Your task to perform on an android device: turn off data saver in the chrome app Image 0: 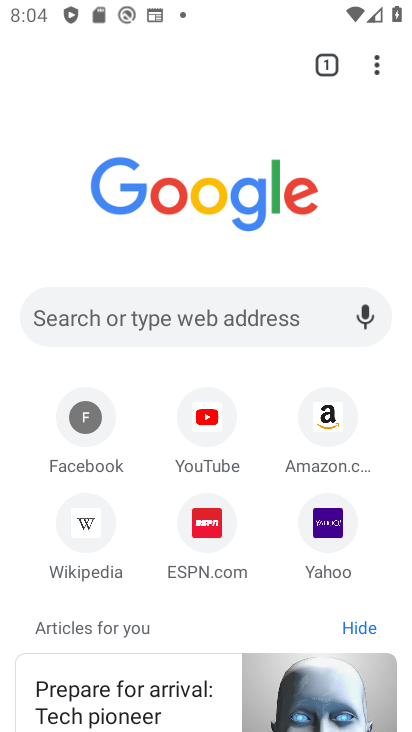
Step 0: press home button
Your task to perform on an android device: turn off data saver in the chrome app Image 1: 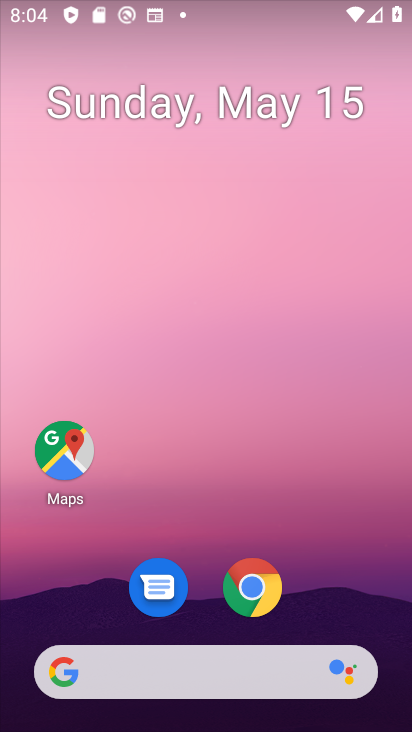
Step 1: drag from (184, 629) to (246, 217)
Your task to perform on an android device: turn off data saver in the chrome app Image 2: 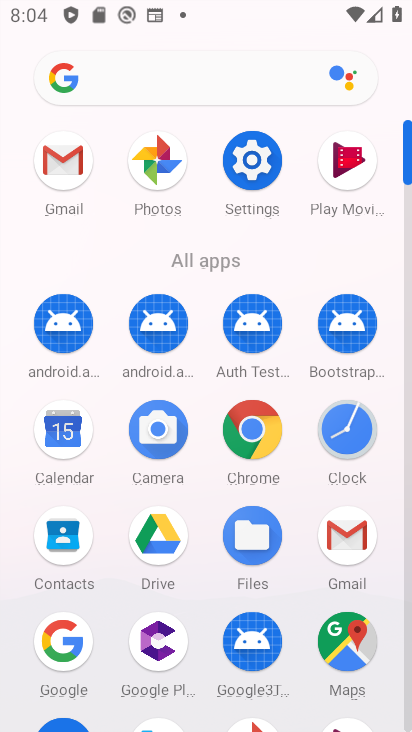
Step 2: click (247, 480)
Your task to perform on an android device: turn off data saver in the chrome app Image 3: 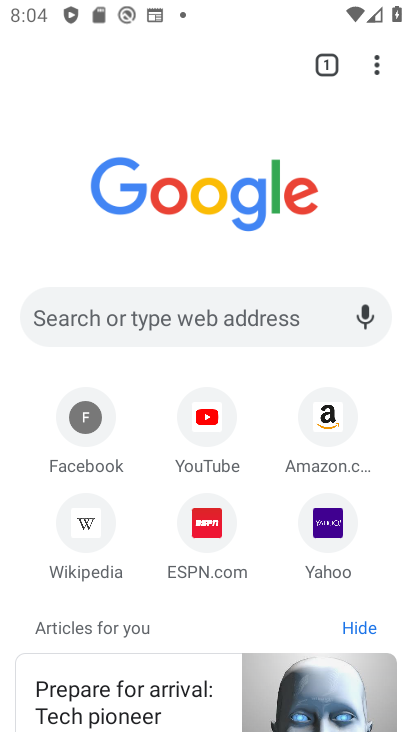
Step 3: click (380, 63)
Your task to perform on an android device: turn off data saver in the chrome app Image 4: 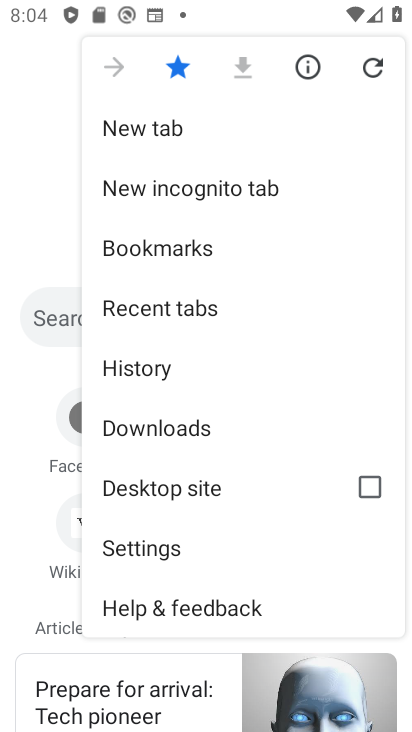
Step 4: click (177, 540)
Your task to perform on an android device: turn off data saver in the chrome app Image 5: 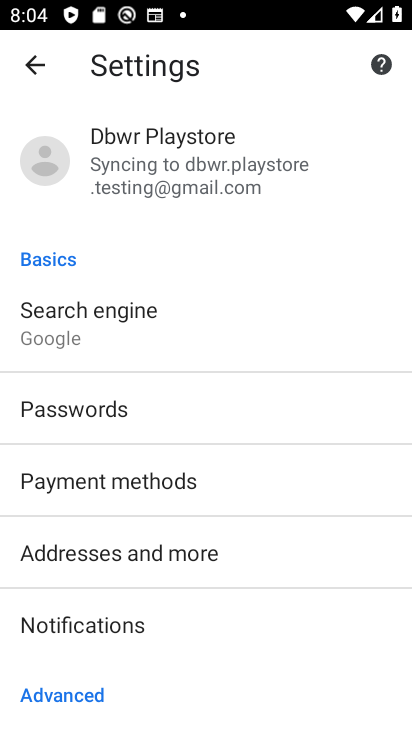
Step 5: drag from (146, 602) to (250, 249)
Your task to perform on an android device: turn off data saver in the chrome app Image 6: 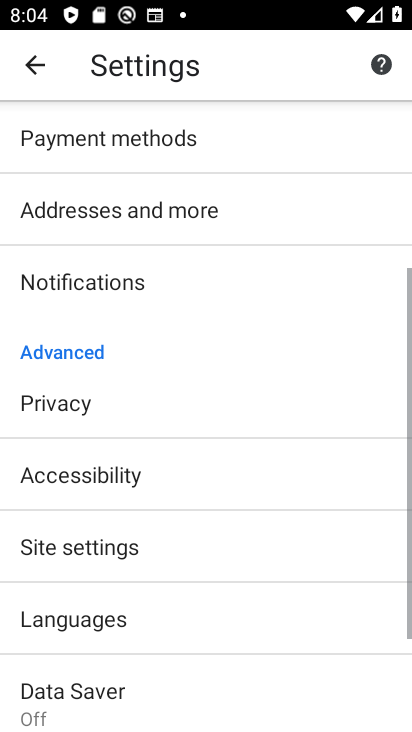
Step 6: drag from (105, 618) to (186, 379)
Your task to perform on an android device: turn off data saver in the chrome app Image 7: 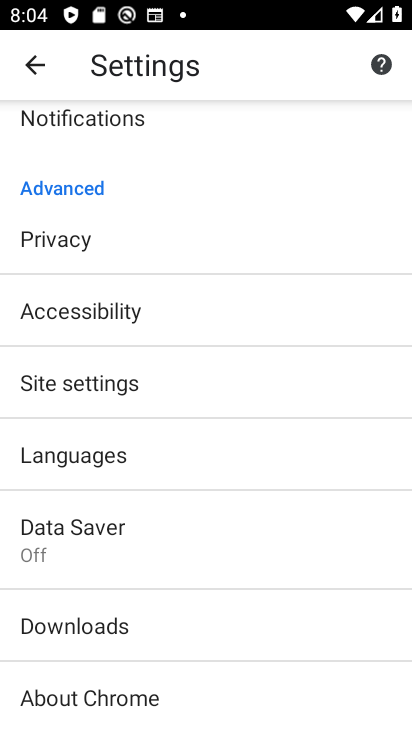
Step 7: click (81, 528)
Your task to perform on an android device: turn off data saver in the chrome app Image 8: 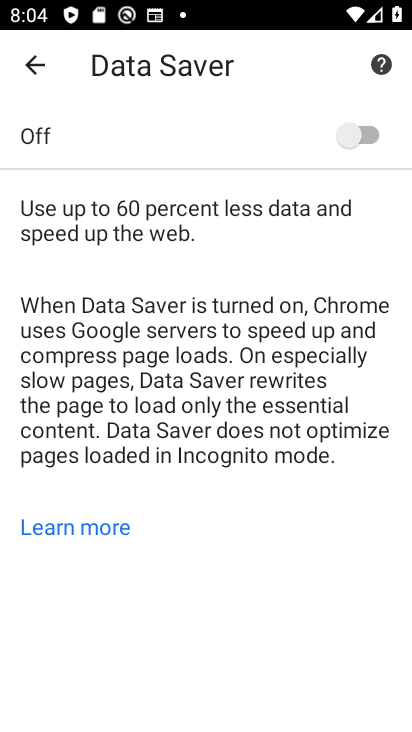
Step 8: task complete